Your task to perform on an android device: Open eBay Image 0: 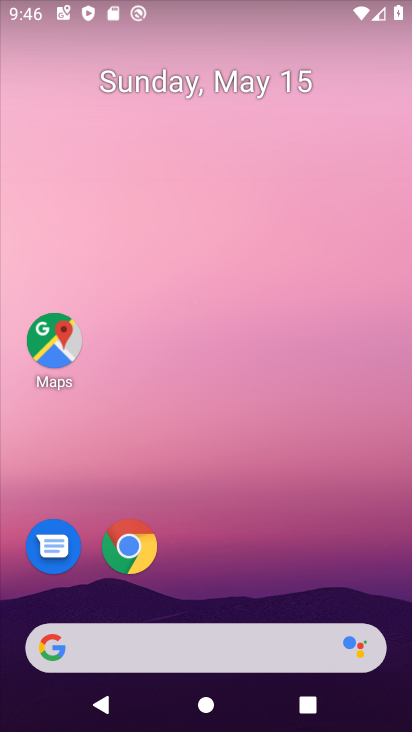
Step 0: click (134, 545)
Your task to perform on an android device: Open eBay Image 1: 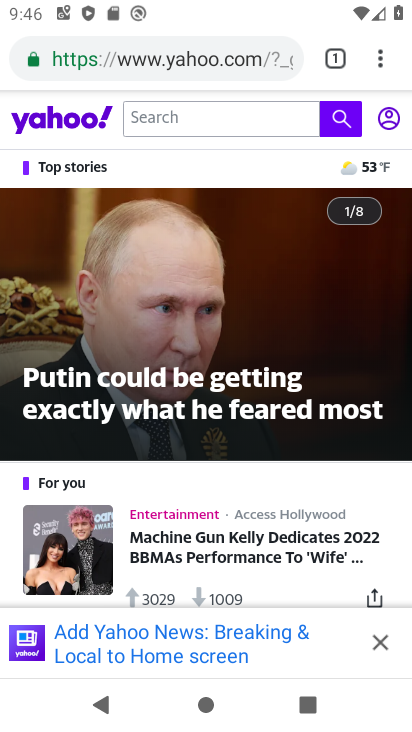
Step 1: click (240, 59)
Your task to perform on an android device: Open eBay Image 2: 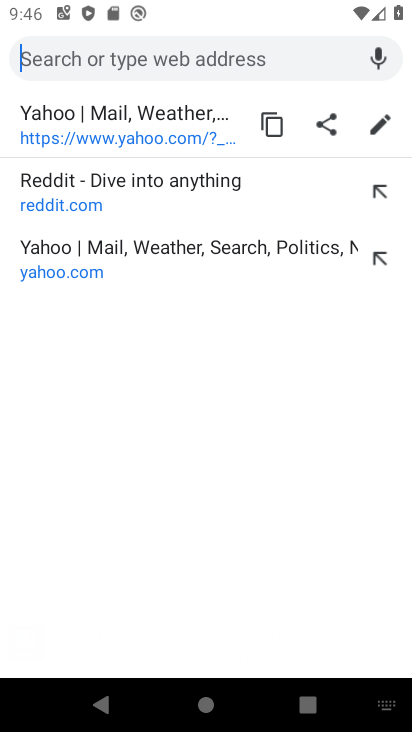
Step 2: type "ebay"
Your task to perform on an android device: Open eBay Image 3: 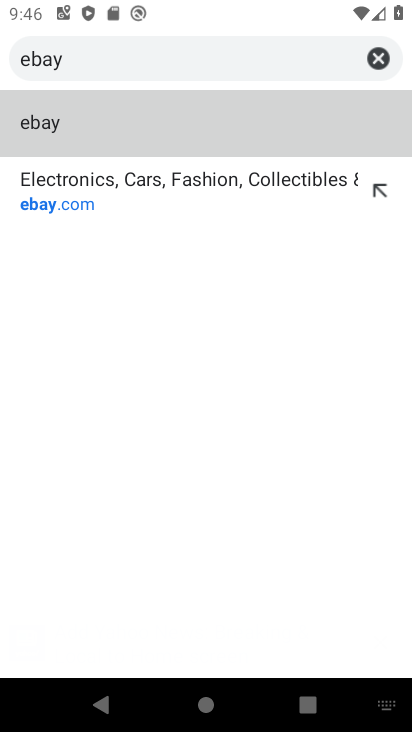
Step 3: click (42, 208)
Your task to perform on an android device: Open eBay Image 4: 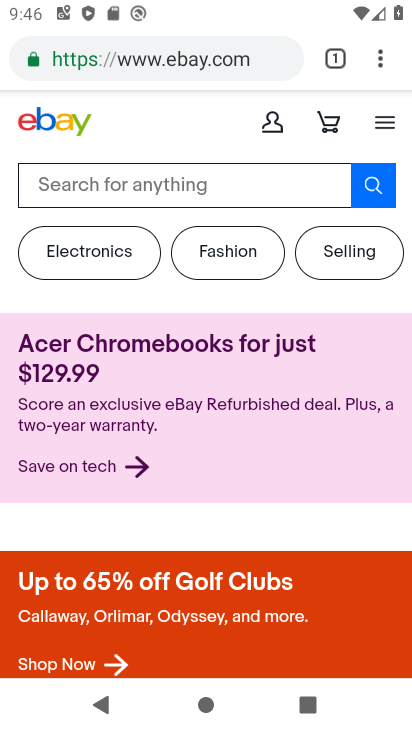
Step 4: task complete